Your task to perform on an android device: turn vacation reply on in the gmail app Image 0: 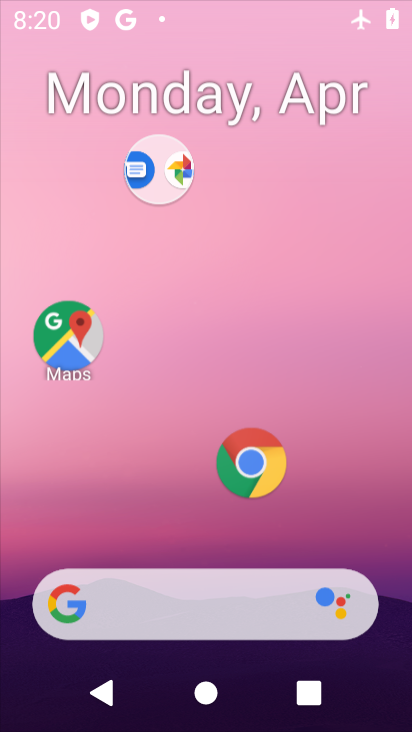
Step 0: click (357, 107)
Your task to perform on an android device: turn vacation reply on in the gmail app Image 1: 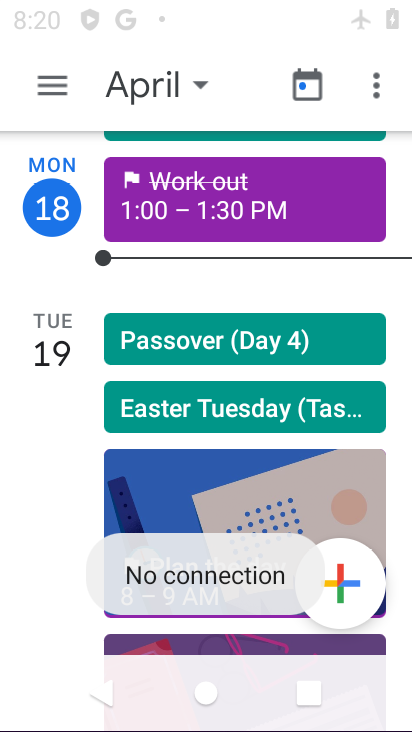
Step 1: drag from (186, 486) to (294, 142)
Your task to perform on an android device: turn vacation reply on in the gmail app Image 2: 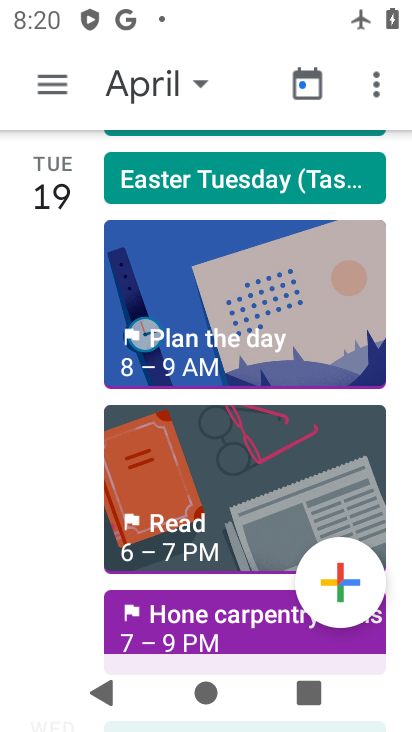
Step 2: press home button
Your task to perform on an android device: turn vacation reply on in the gmail app Image 3: 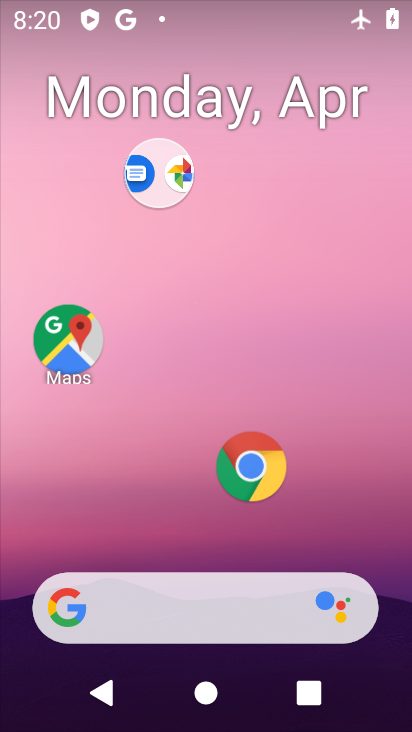
Step 3: drag from (222, 529) to (313, 185)
Your task to perform on an android device: turn vacation reply on in the gmail app Image 4: 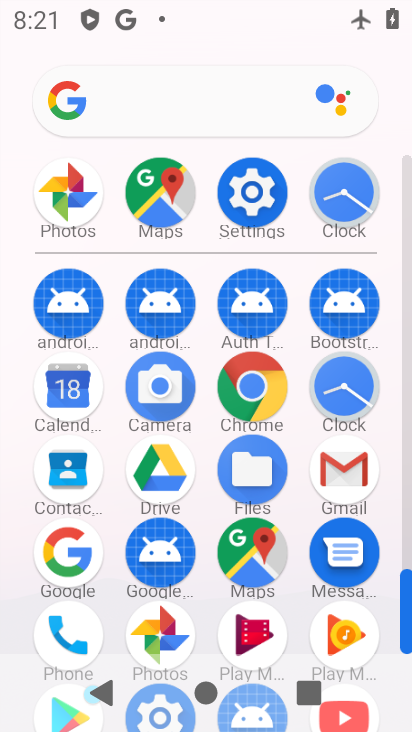
Step 4: click (347, 472)
Your task to perform on an android device: turn vacation reply on in the gmail app Image 5: 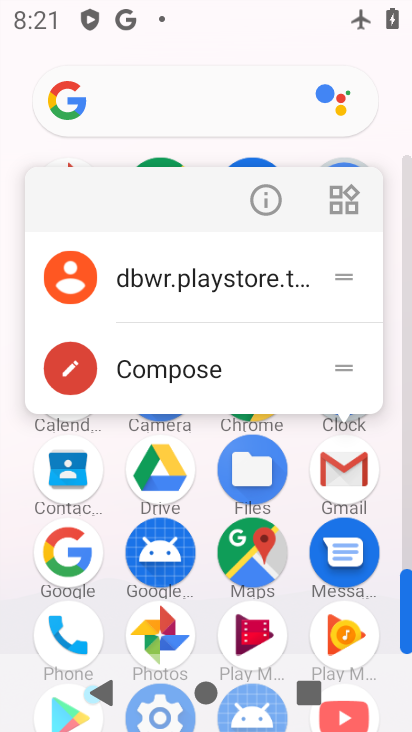
Step 5: click (264, 195)
Your task to perform on an android device: turn vacation reply on in the gmail app Image 6: 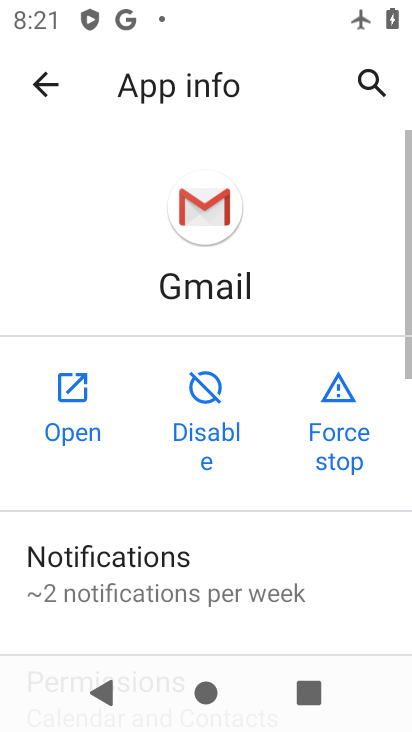
Step 6: click (64, 385)
Your task to perform on an android device: turn vacation reply on in the gmail app Image 7: 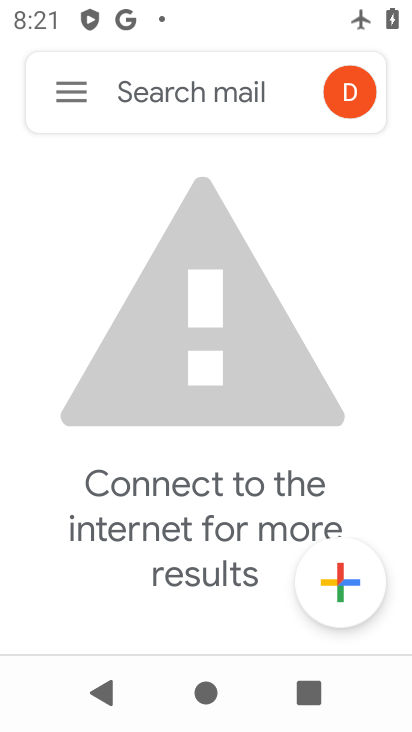
Step 7: drag from (222, 544) to (316, 238)
Your task to perform on an android device: turn vacation reply on in the gmail app Image 8: 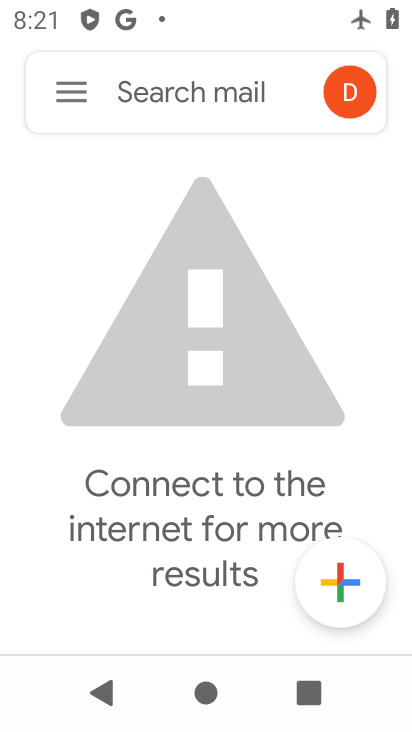
Step 8: click (55, 106)
Your task to perform on an android device: turn vacation reply on in the gmail app Image 9: 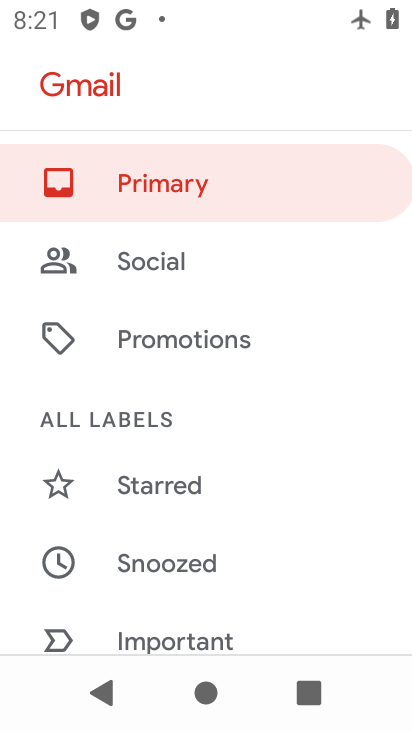
Step 9: drag from (212, 588) to (267, 197)
Your task to perform on an android device: turn vacation reply on in the gmail app Image 10: 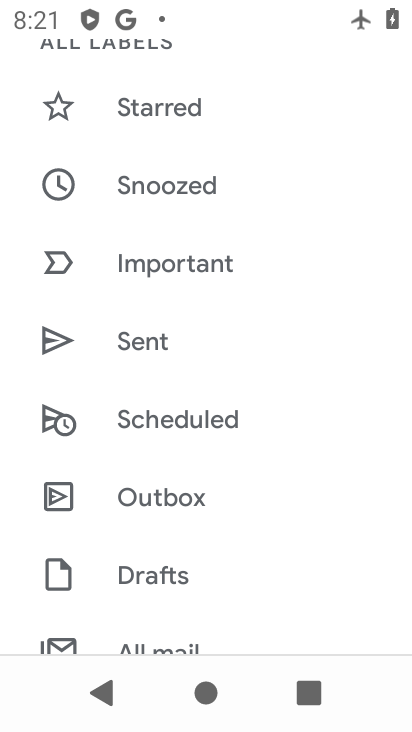
Step 10: drag from (219, 560) to (301, 154)
Your task to perform on an android device: turn vacation reply on in the gmail app Image 11: 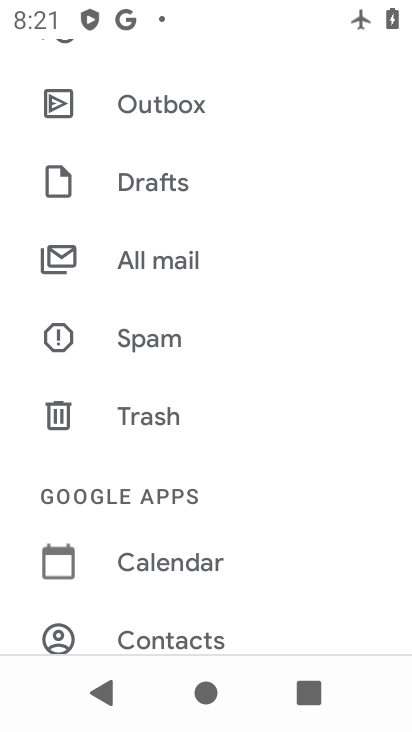
Step 11: drag from (205, 504) to (296, 158)
Your task to perform on an android device: turn vacation reply on in the gmail app Image 12: 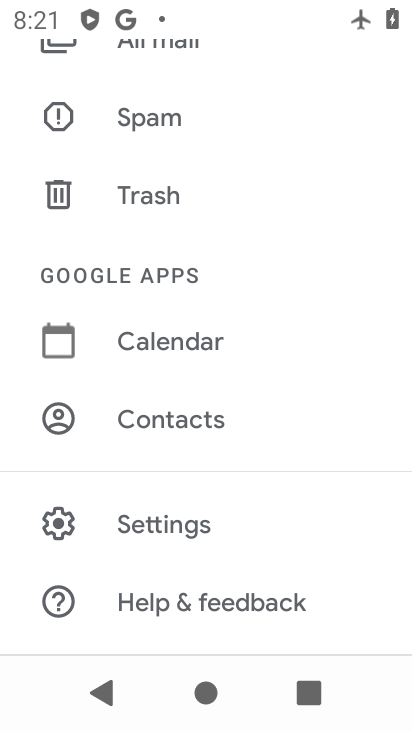
Step 12: click (192, 515)
Your task to perform on an android device: turn vacation reply on in the gmail app Image 13: 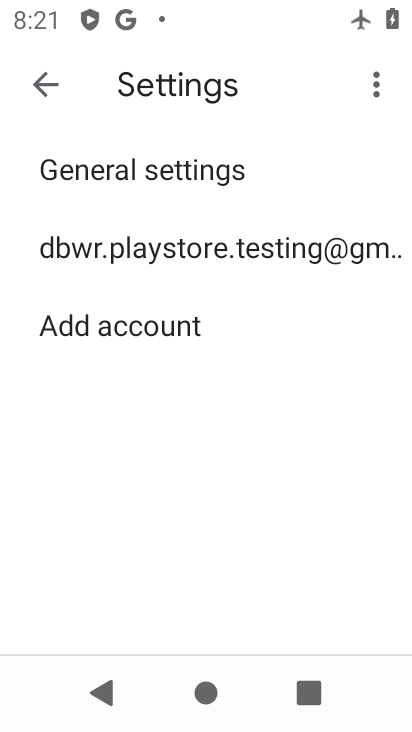
Step 13: drag from (237, 485) to (289, 208)
Your task to perform on an android device: turn vacation reply on in the gmail app Image 14: 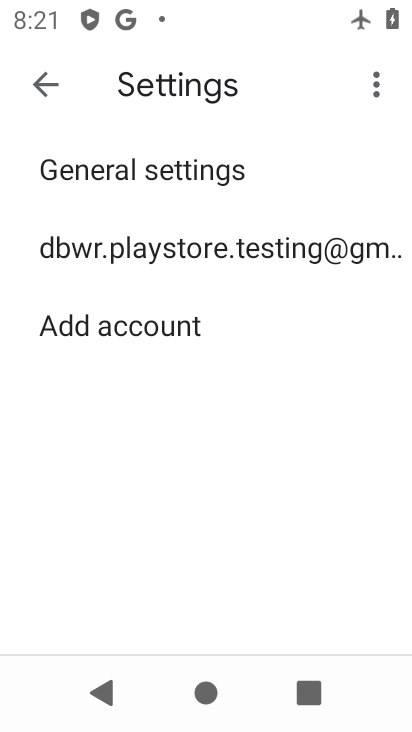
Step 14: click (231, 261)
Your task to perform on an android device: turn vacation reply on in the gmail app Image 15: 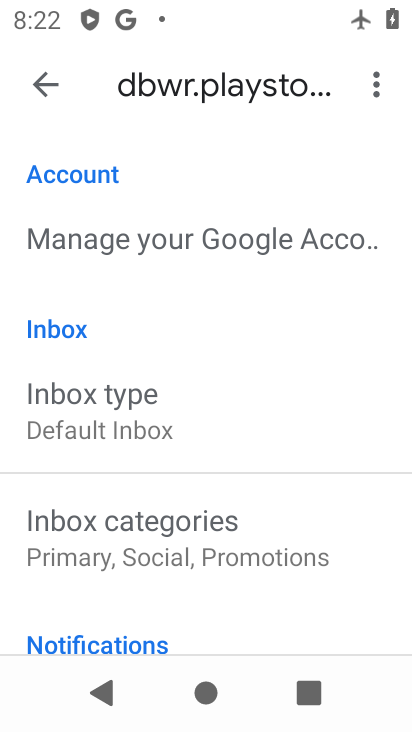
Step 15: drag from (216, 475) to (326, 220)
Your task to perform on an android device: turn vacation reply on in the gmail app Image 16: 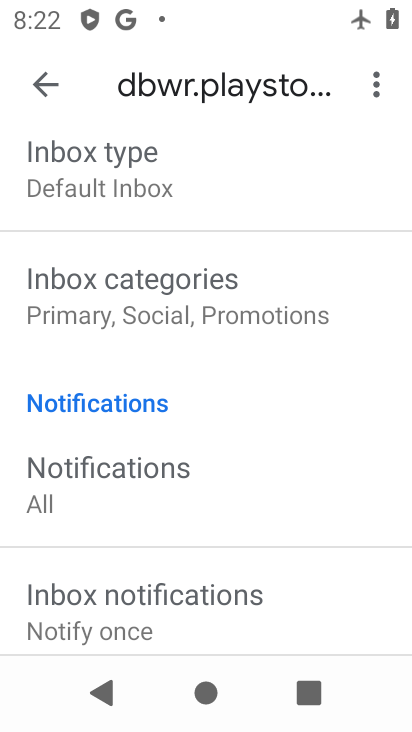
Step 16: drag from (198, 498) to (368, 9)
Your task to perform on an android device: turn vacation reply on in the gmail app Image 17: 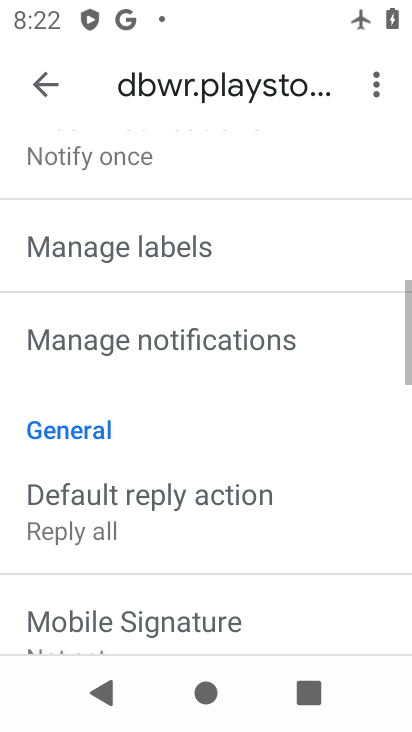
Step 17: drag from (196, 522) to (293, 77)
Your task to perform on an android device: turn vacation reply on in the gmail app Image 18: 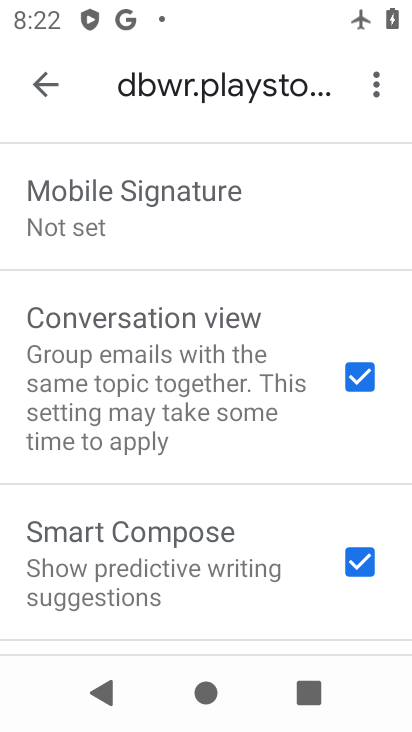
Step 18: drag from (234, 547) to (369, 106)
Your task to perform on an android device: turn vacation reply on in the gmail app Image 19: 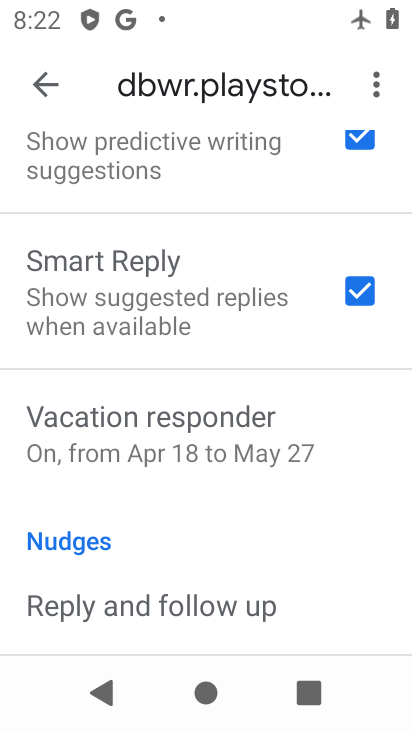
Step 19: click (170, 433)
Your task to perform on an android device: turn vacation reply on in the gmail app Image 20: 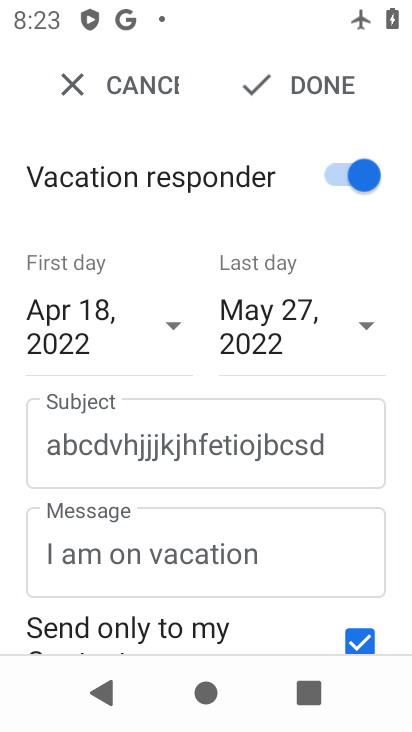
Step 20: click (289, 92)
Your task to perform on an android device: turn vacation reply on in the gmail app Image 21: 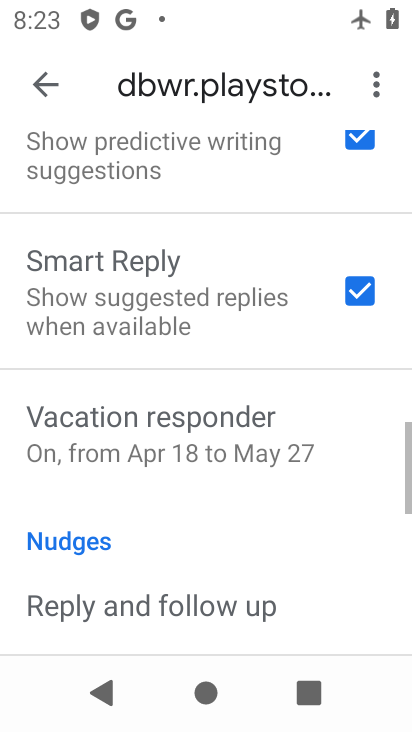
Step 21: task complete